Your task to perform on an android device: toggle translation in the chrome app Image 0: 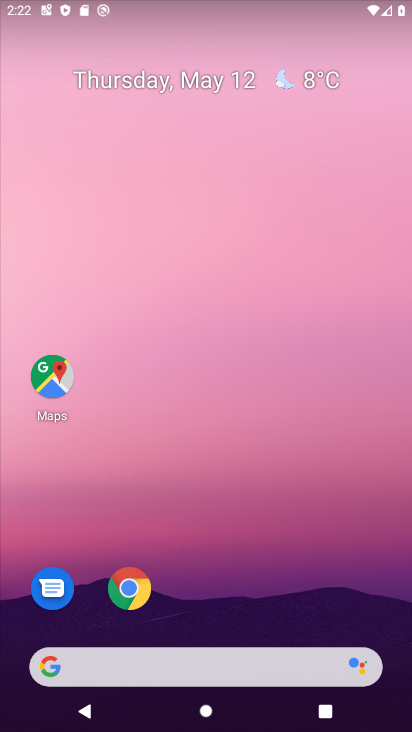
Step 0: drag from (217, 533) to (180, 33)
Your task to perform on an android device: toggle translation in the chrome app Image 1: 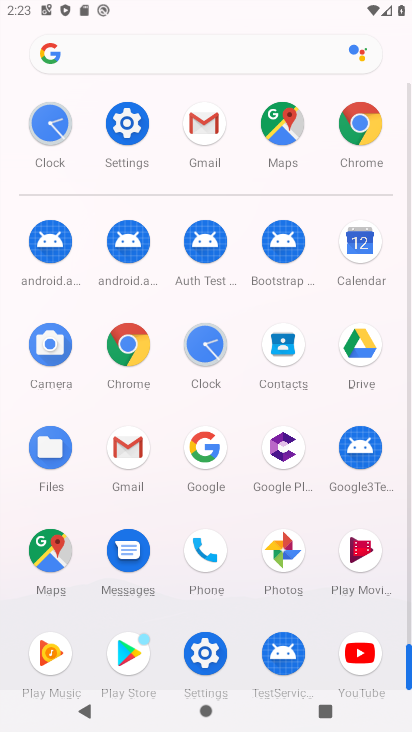
Step 1: click (125, 340)
Your task to perform on an android device: toggle translation in the chrome app Image 2: 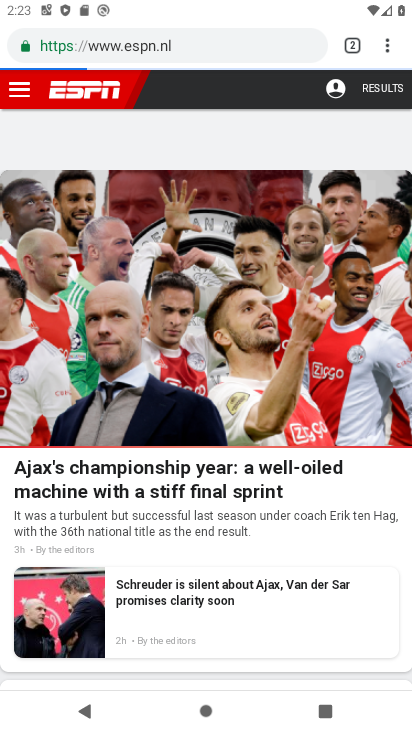
Step 2: drag from (385, 49) to (228, 506)
Your task to perform on an android device: toggle translation in the chrome app Image 3: 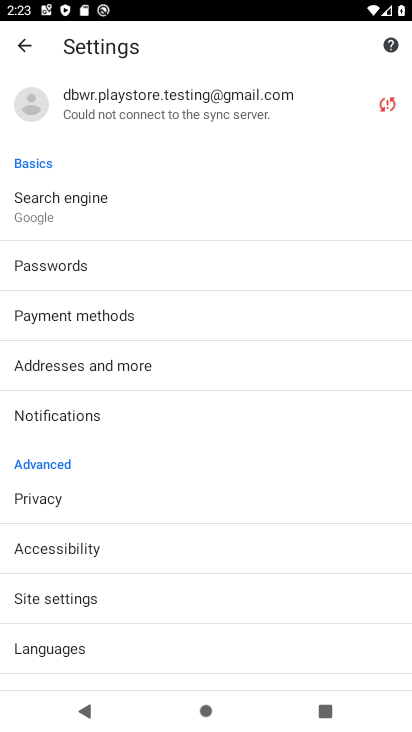
Step 3: drag from (207, 601) to (229, 203)
Your task to perform on an android device: toggle translation in the chrome app Image 4: 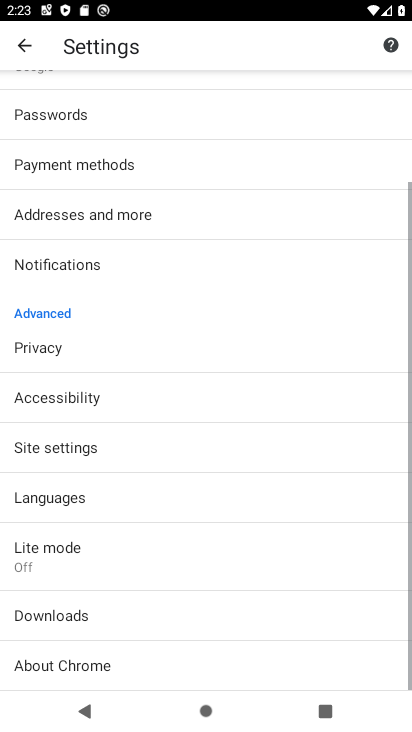
Step 4: drag from (182, 556) to (208, 263)
Your task to perform on an android device: toggle translation in the chrome app Image 5: 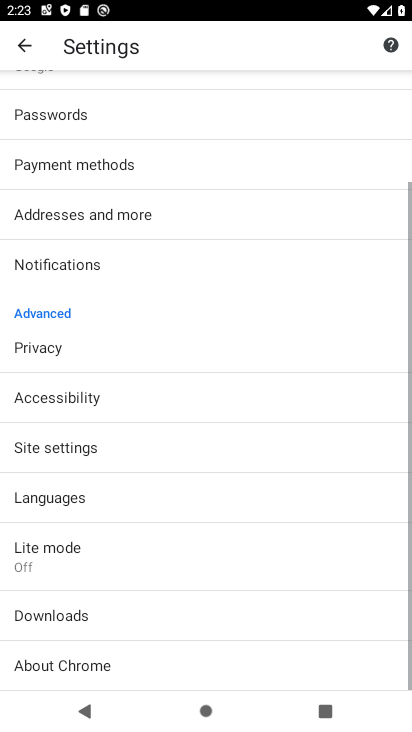
Step 5: click (75, 494)
Your task to perform on an android device: toggle translation in the chrome app Image 6: 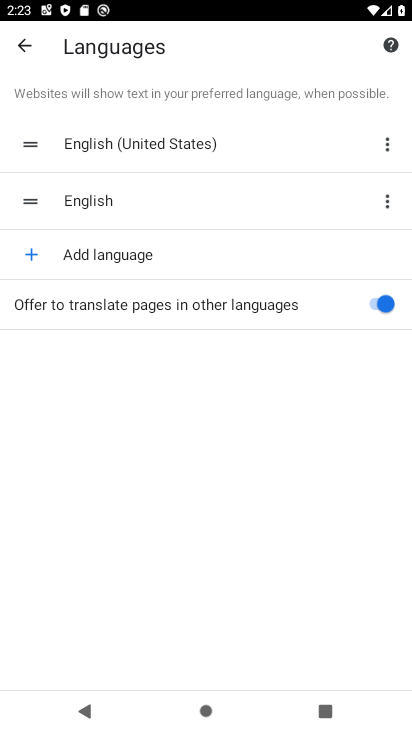
Step 6: task complete